Your task to perform on an android device: install app "Expedia: Hotels, Flights & Car" Image 0: 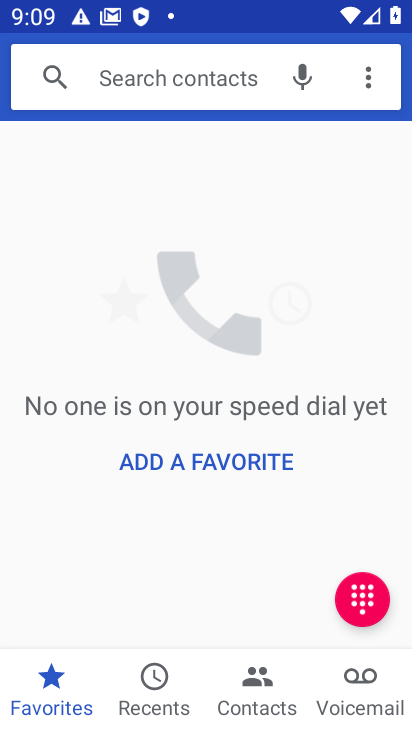
Step 0: press home button
Your task to perform on an android device: install app "Expedia: Hotels, Flights & Car" Image 1: 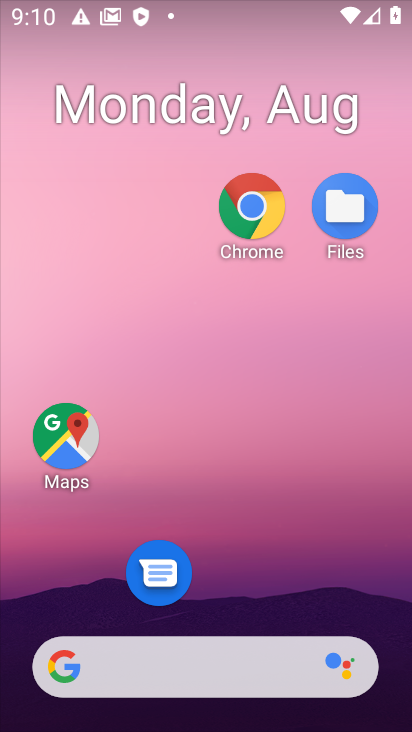
Step 1: drag from (264, 653) to (230, 334)
Your task to perform on an android device: install app "Expedia: Hotels, Flights & Car" Image 2: 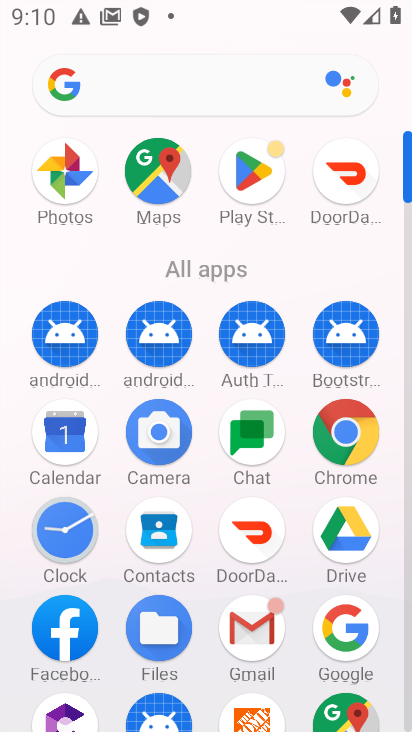
Step 2: click (236, 164)
Your task to perform on an android device: install app "Expedia: Hotels, Flights & Car" Image 3: 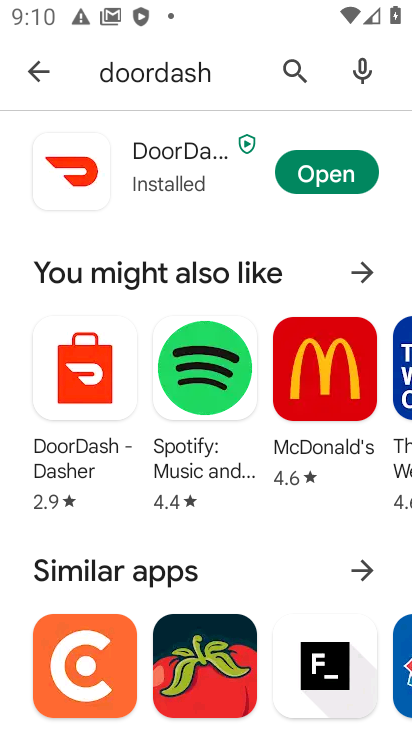
Step 3: click (280, 58)
Your task to perform on an android device: install app "Expedia: Hotels, Flights & Car" Image 4: 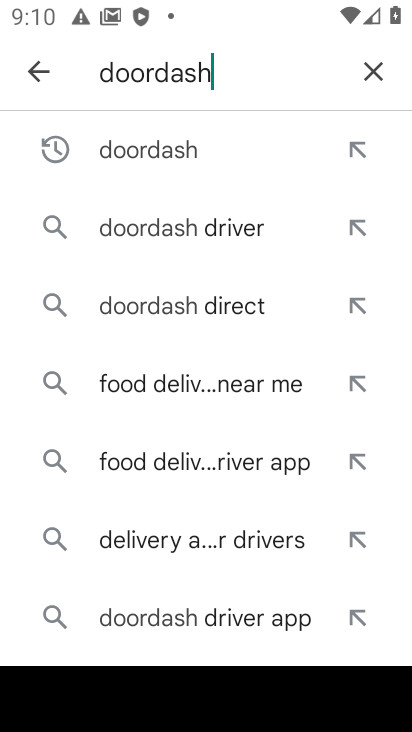
Step 4: click (371, 80)
Your task to perform on an android device: install app "Expedia: Hotels, Flights & Car" Image 5: 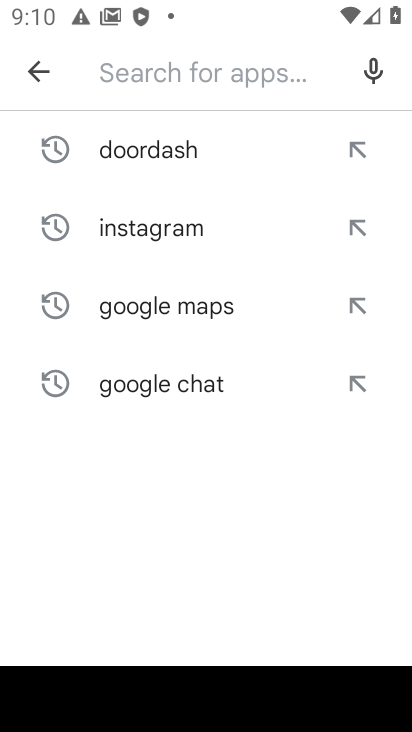
Step 5: type "expedia hotel, flight & car"
Your task to perform on an android device: install app "Expedia: Hotels, Flights & Car" Image 6: 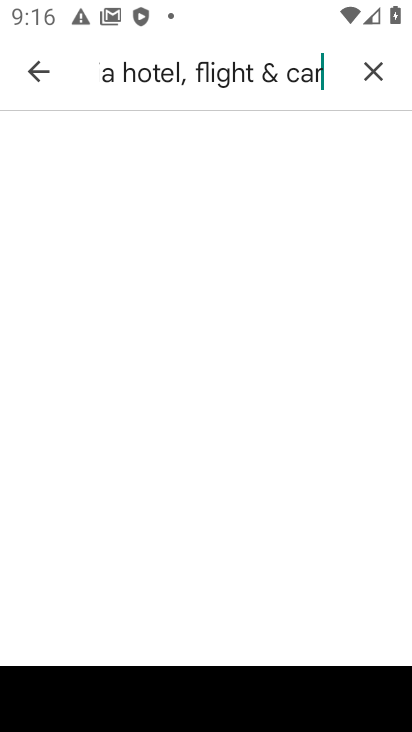
Step 6: task complete